Your task to perform on an android device: Open Google Image 0: 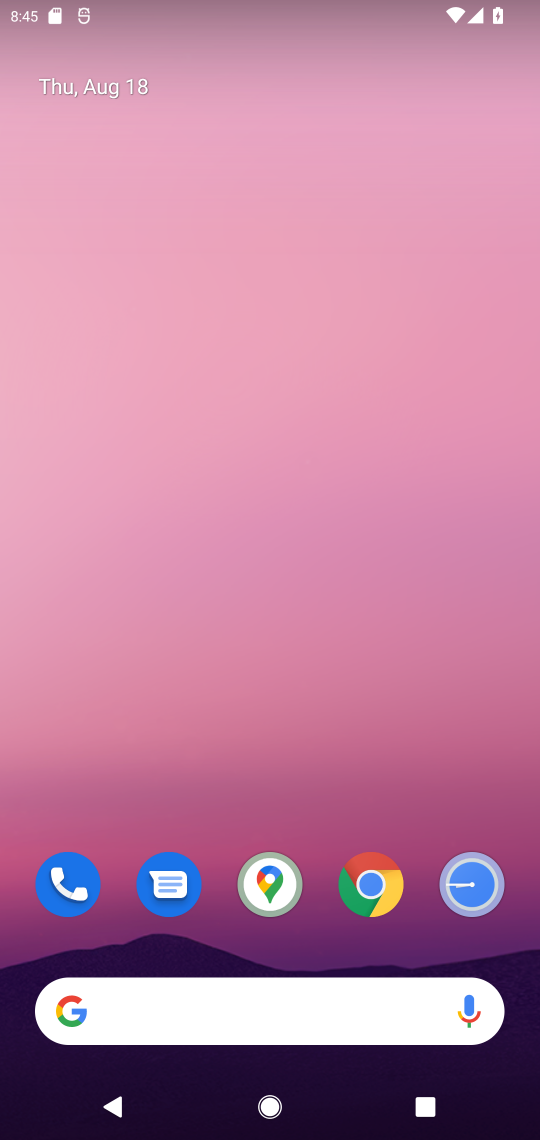
Step 0: click (305, 1013)
Your task to perform on an android device: Open Google Image 1: 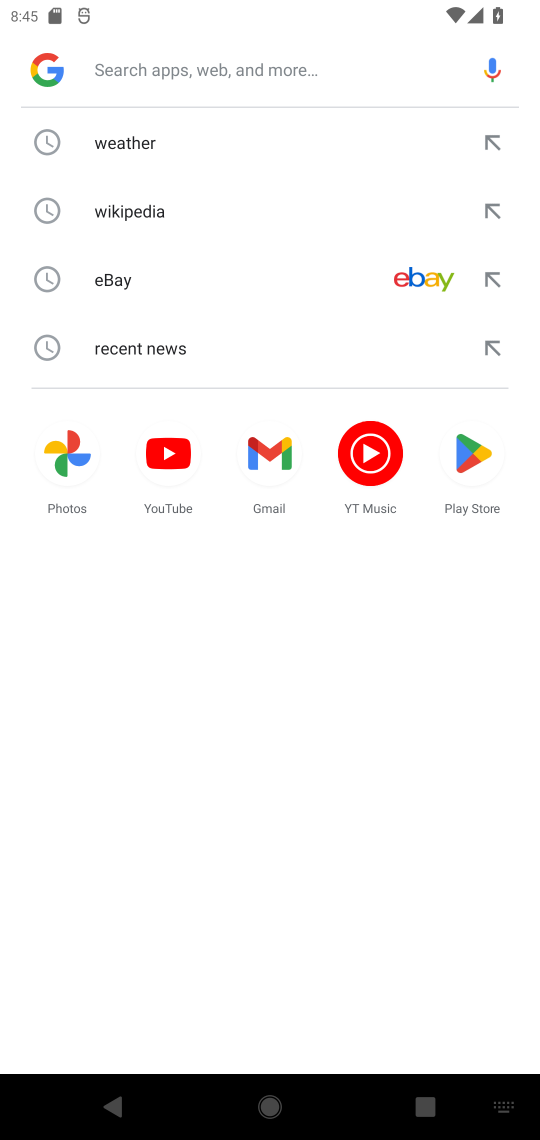
Step 1: task complete